Your task to perform on an android device: Open Google Chrome and click the shortcut for Amazon.com Image 0: 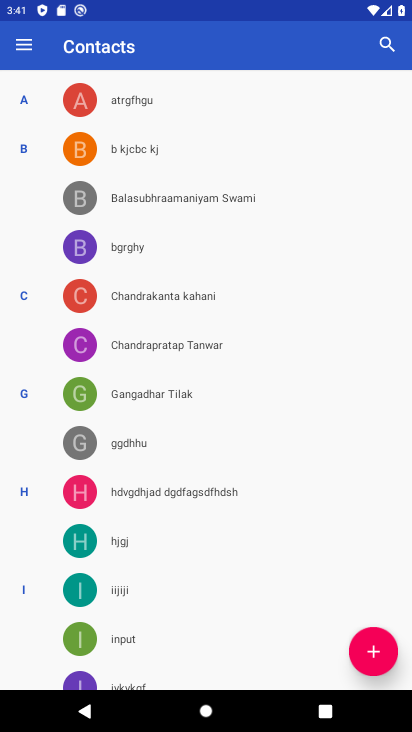
Step 0: press home button
Your task to perform on an android device: Open Google Chrome and click the shortcut for Amazon.com Image 1: 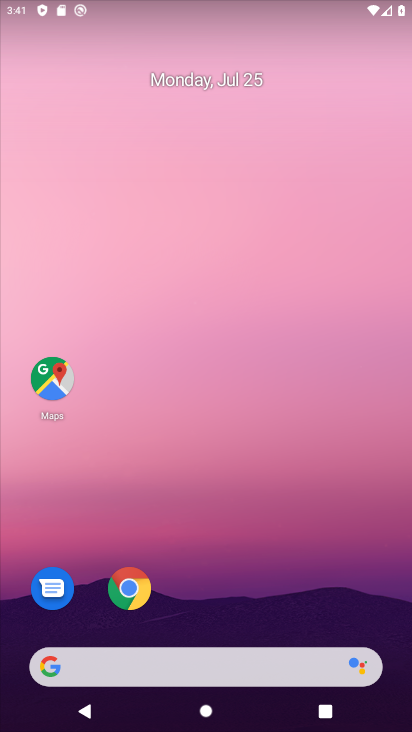
Step 1: click (123, 587)
Your task to perform on an android device: Open Google Chrome and click the shortcut for Amazon.com Image 2: 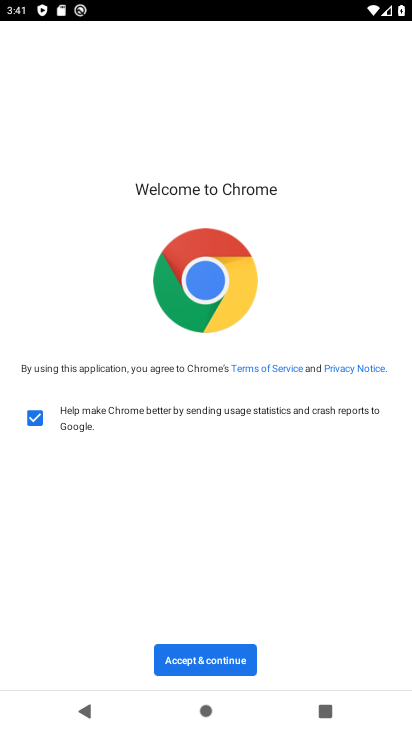
Step 2: click (212, 658)
Your task to perform on an android device: Open Google Chrome and click the shortcut for Amazon.com Image 3: 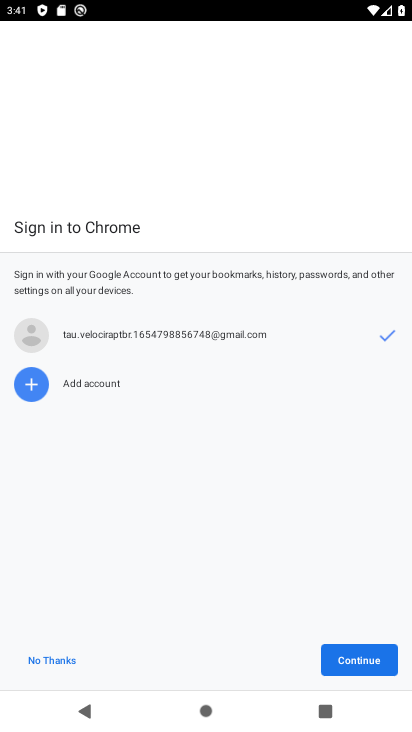
Step 3: click (374, 671)
Your task to perform on an android device: Open Google Chrome and click the shortcut for Amazon.com Image 4: 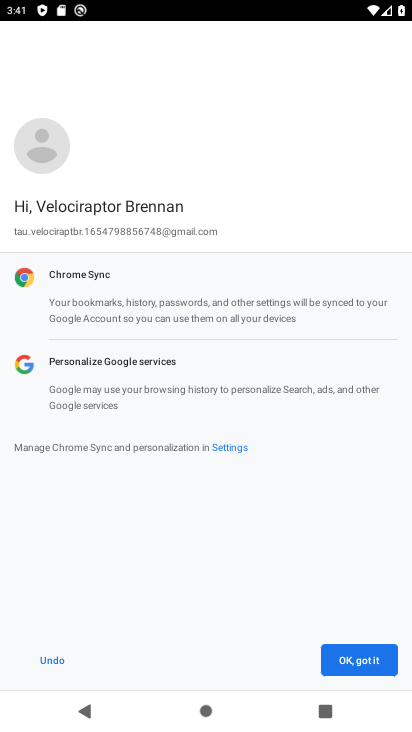
Step 4: click (374, 671)
Your task to perform on an android device: Open Google Chrome and click the shortcut for Amazon.com Image 5: 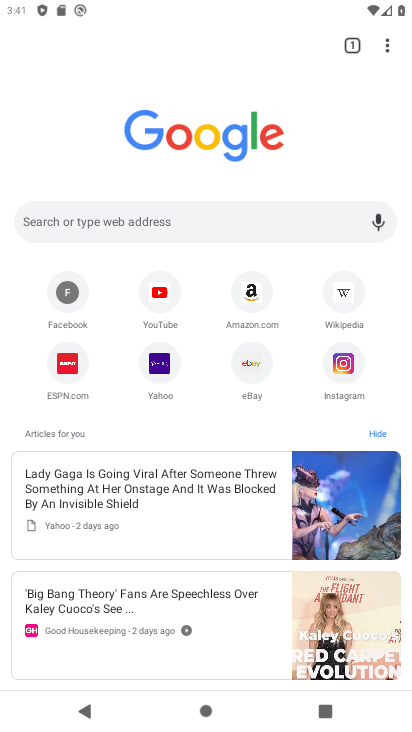
Step 5: click (253, 312)
Your task to perform on an android device: Open Google Chrome and click the shortcut for Amazon.com Image 6: 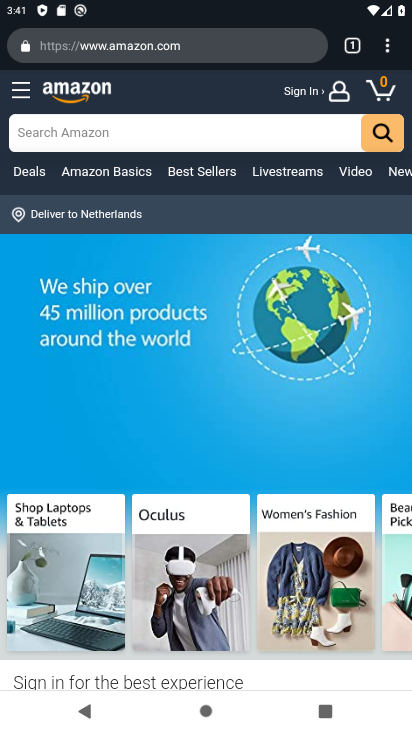
Step 6: task complete